Your task to perform on an android device: turn off translation in the chrome app Image 0: 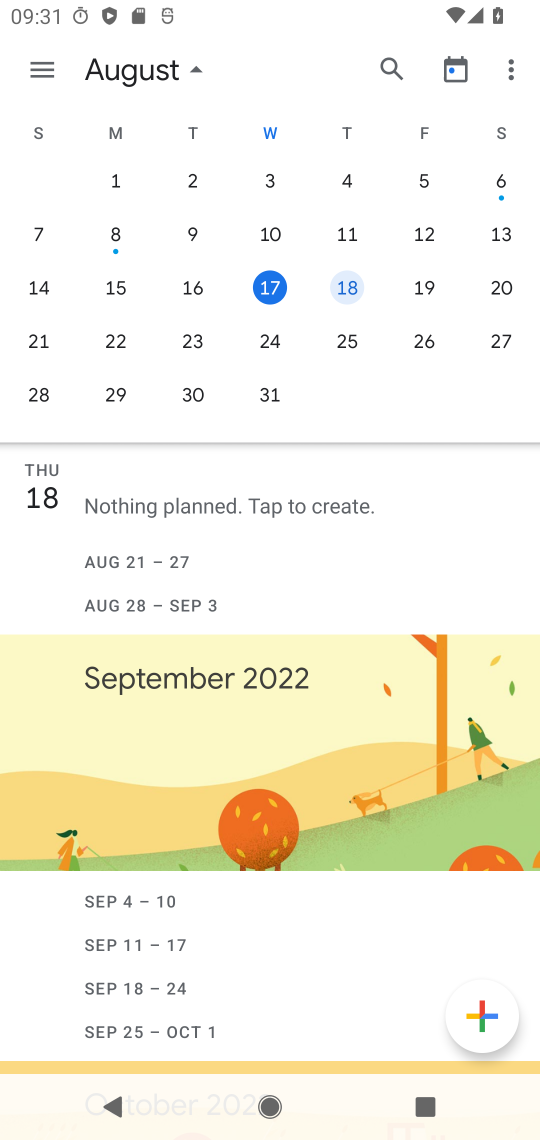
Step 0: press home button
Your task to perform on an android device: turn off translation in the chrome app Image 1: 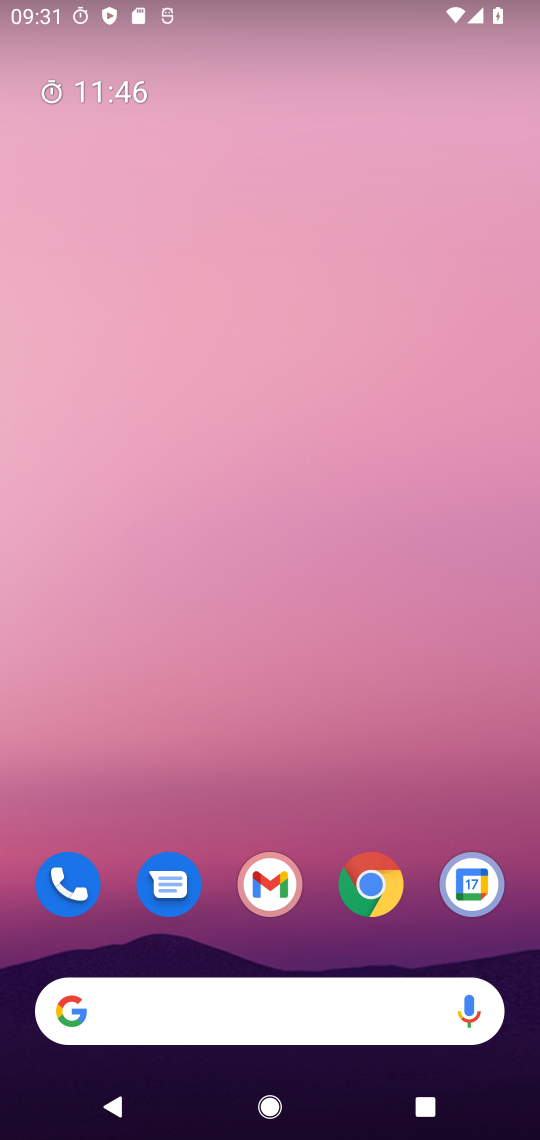
Step 1: click (385, 889)
Your task to perform on an android device: turn off translation in the chrome app Image 2: 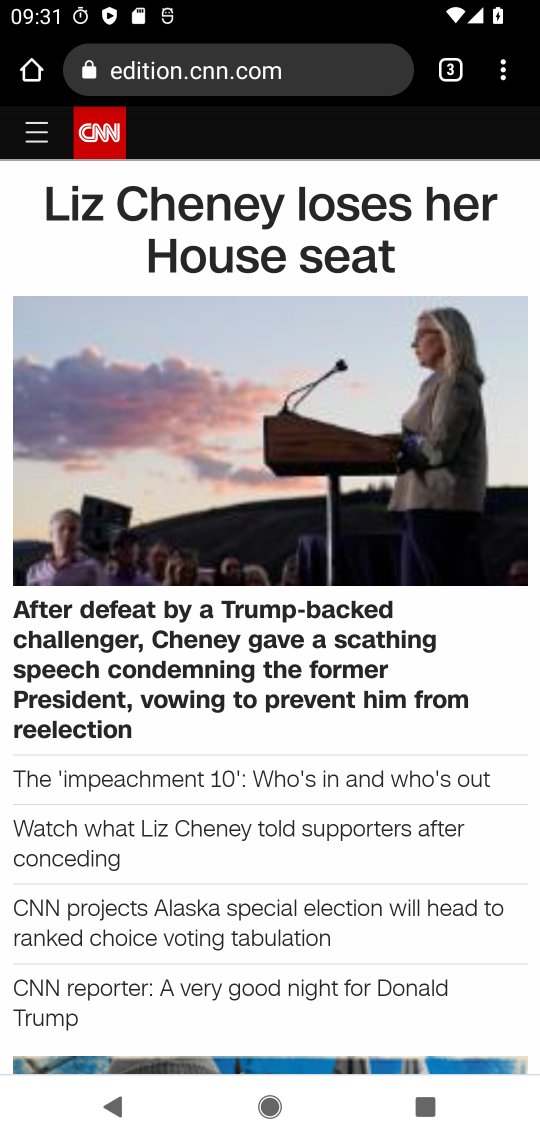
Step 2: click (501, 60)
Your task to perform on an android device: turn off translation in the chrome app Image 3: 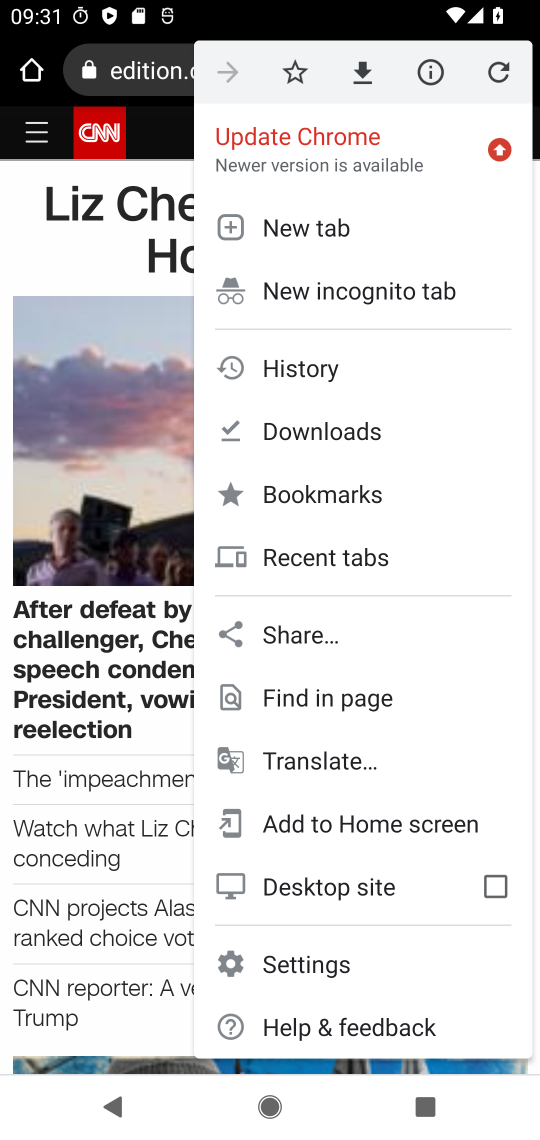
Step 3: click (308, 964)
Your task to perform on an android device: turn off translation in the chrome app Image 4: 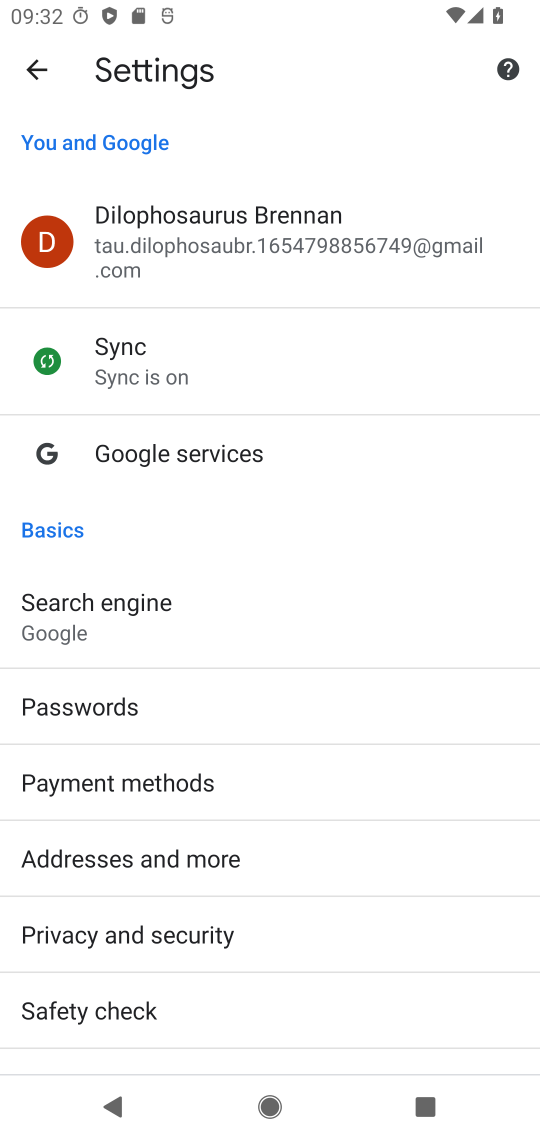
Step 4: drag from (201, 956) to (203, 521)
Your task to perform on an android device: turn off translation in the chrome app Image 5: 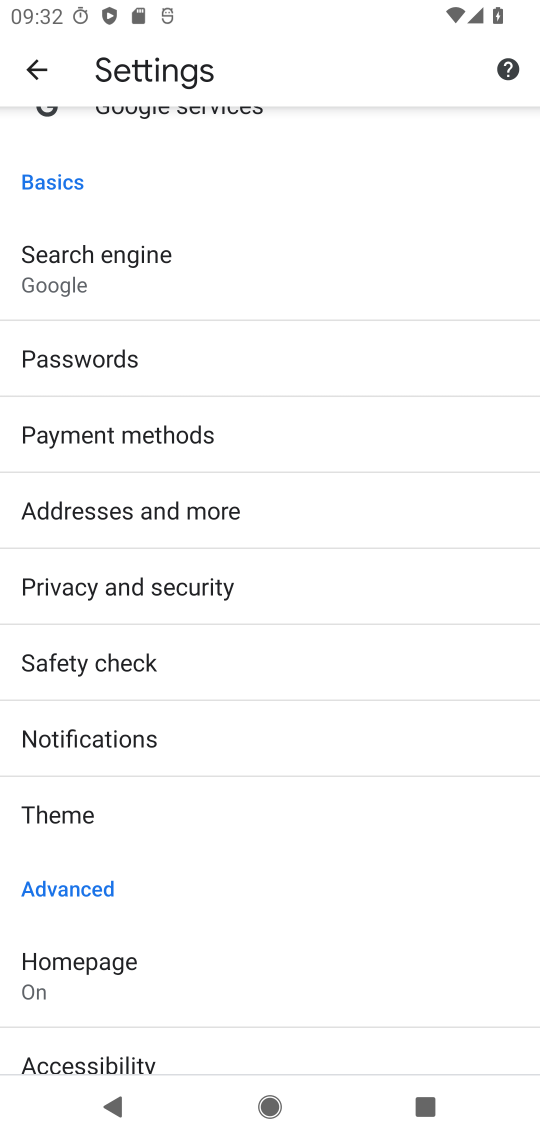
Step 5: drag from (178, 887) to (198, 408)
Your task to perform on an android device: turn off translation in the chrome app Image 6: 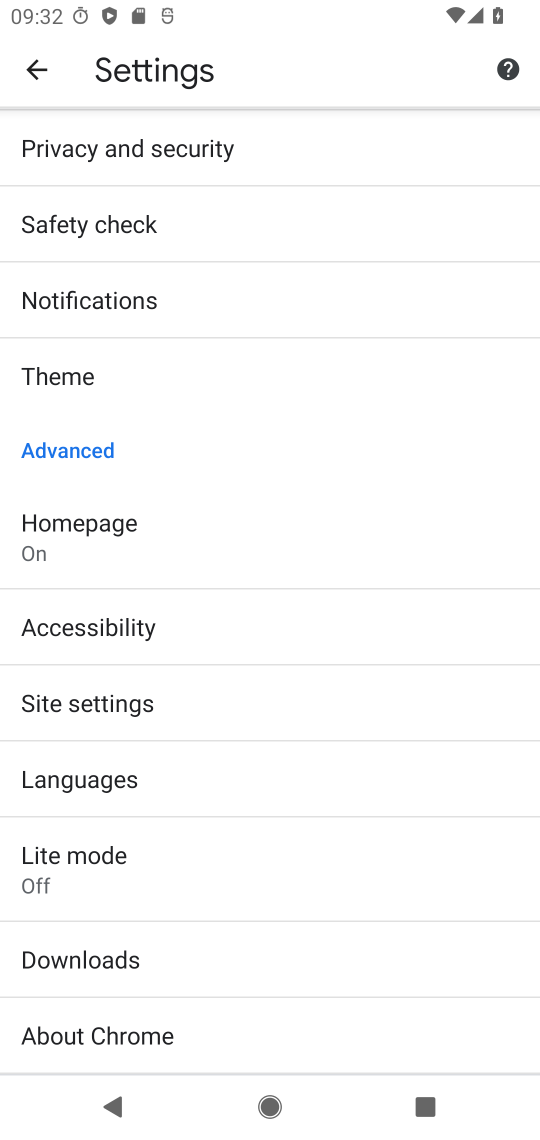
Step 6: click (145, 785)
Your task to perform on an android device: turn off translation in the chrome app Image 7: 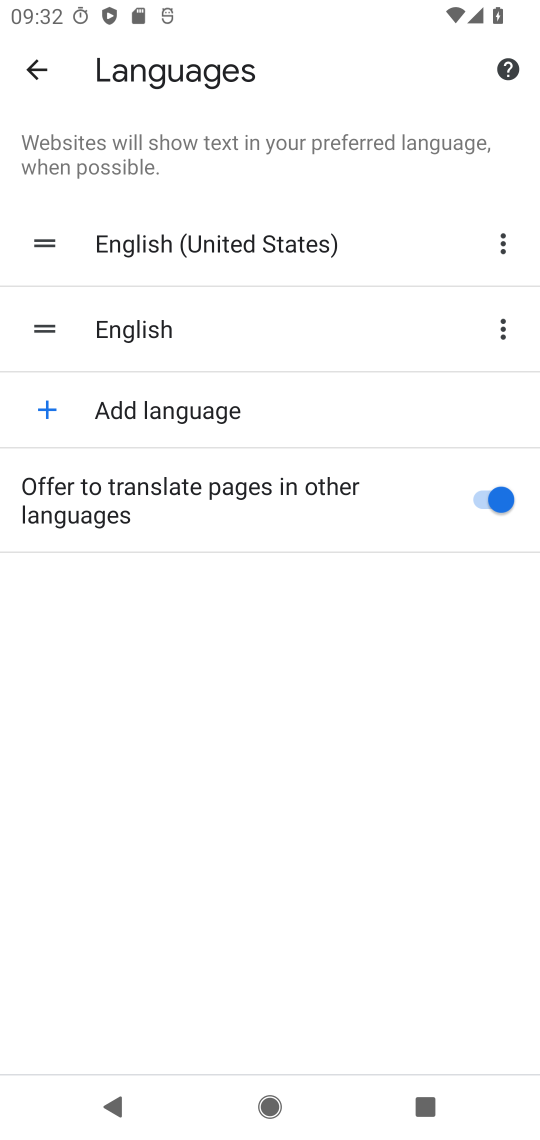
Step 7: click (487, 494)
Your task to perform on an android device: turn off translation in the chrome app Image 8: 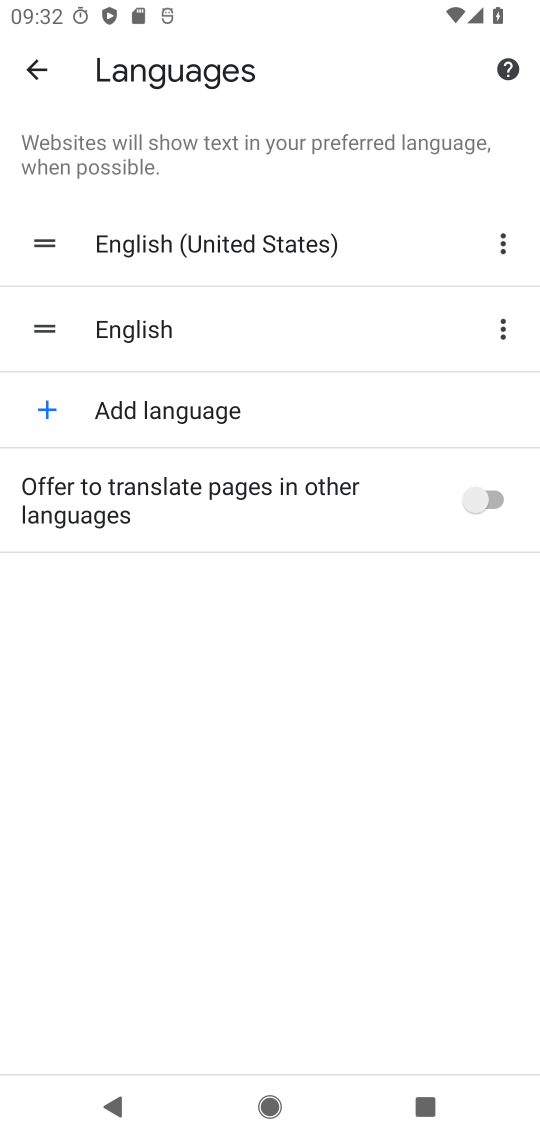
Step 8: task complete